Your task to perform on an android device: read, delete, or share a saved page in the chrome app Image 0: 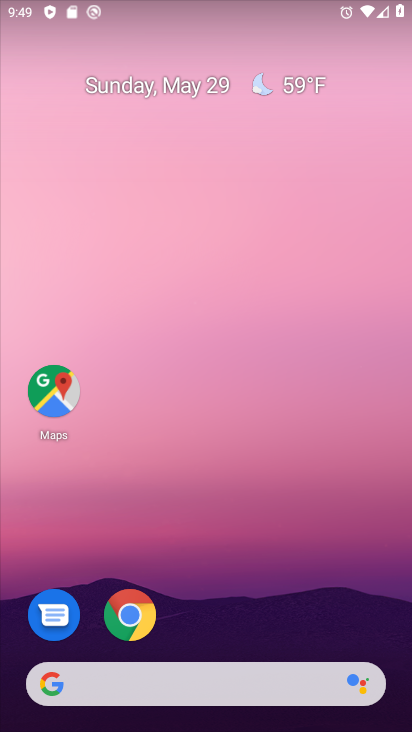
Step 0: click (132, 628)
Your task to perform on an android device: read, delete, or share a saved page in the chrome app Image 1: 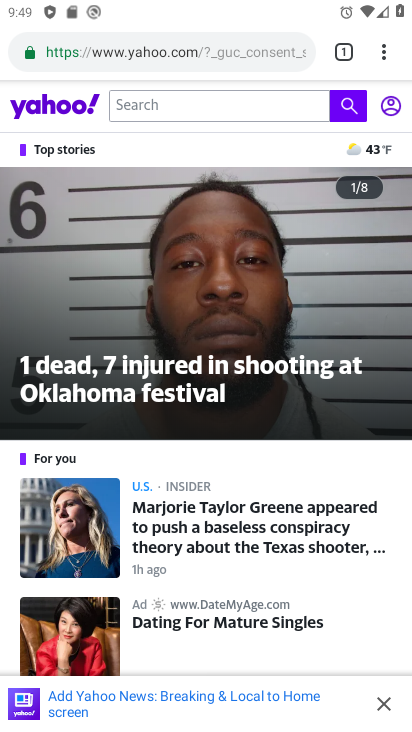
Step 1: click (379, 56)
Your task to perform on an android device: read, delete, or share a saved page in the chrome app Image 2: 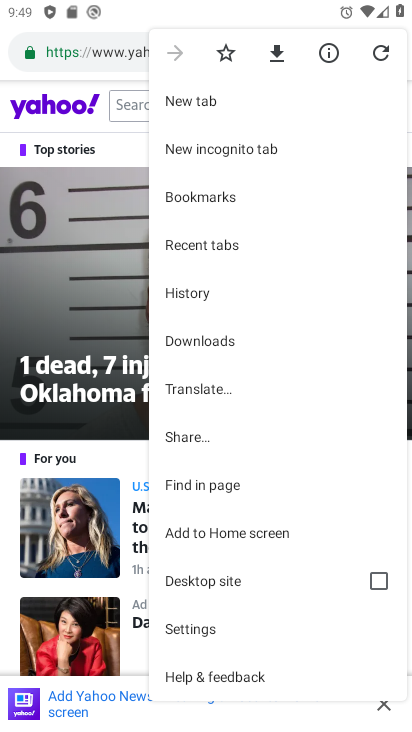
Step 2: click (224, 628)
Your task to perform on an android device: read, delete, or share a saved page in the chrome app Image 3: 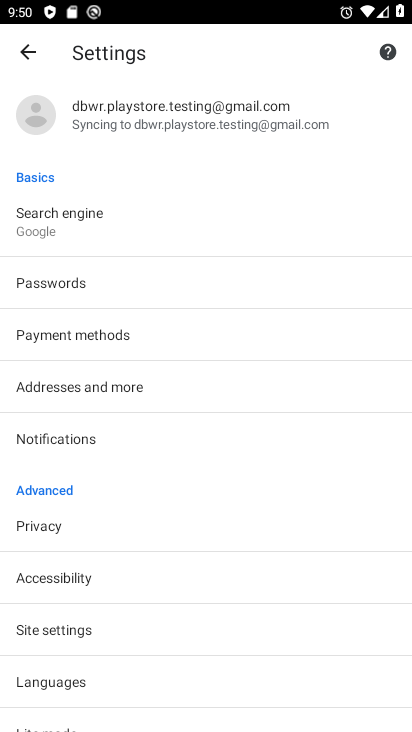
Step 3: press back button
Your task to perform on an android device: read, delete, or share a saved page in the chrome app Image 4: 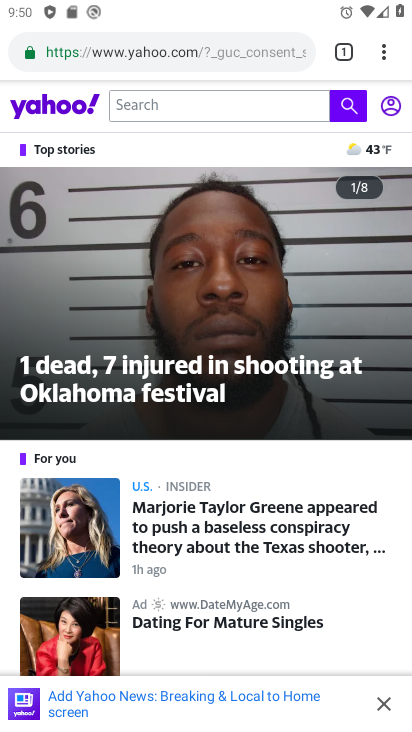
Step 4: click (377, 57)
Your task to perform on an android device: read, delete, or share a saved page in the chrome app Image 5: 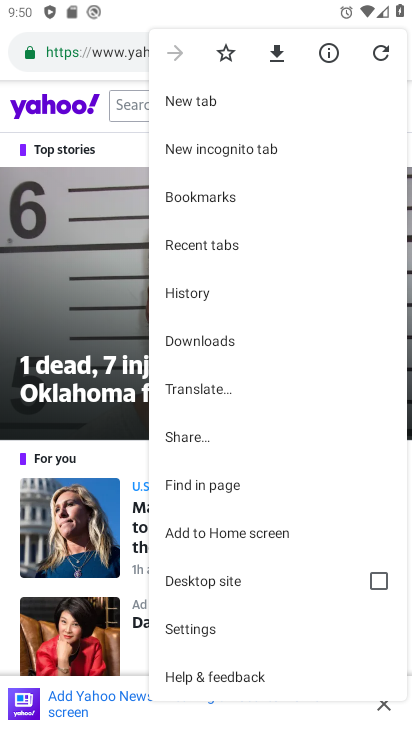
Step 5: click (228, 345)
Your task to perform on an android device: read, delete, or share a saved page in the chrome app Image 6: 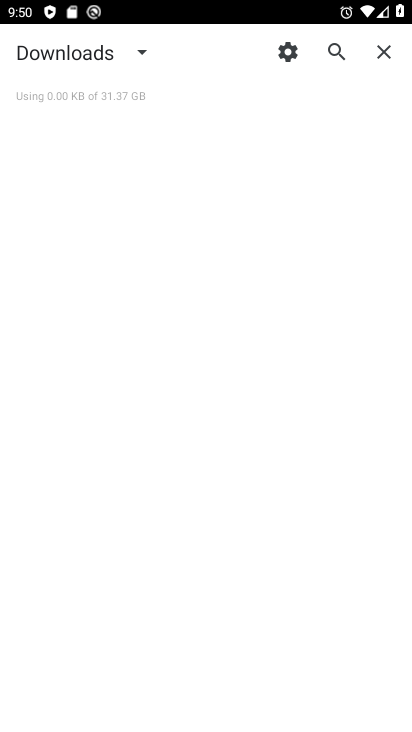
Step 6: task complete